Your task to perform on an android device: visit the assistant section in the google photos Image 0: 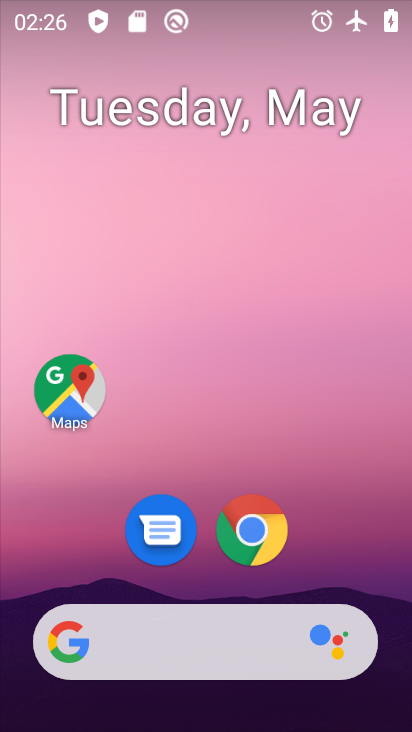
Step 0: drag from (196, 577) to (281, 190)
Your task to perform on an android device: visit the assistant section in the google photos Image 1: 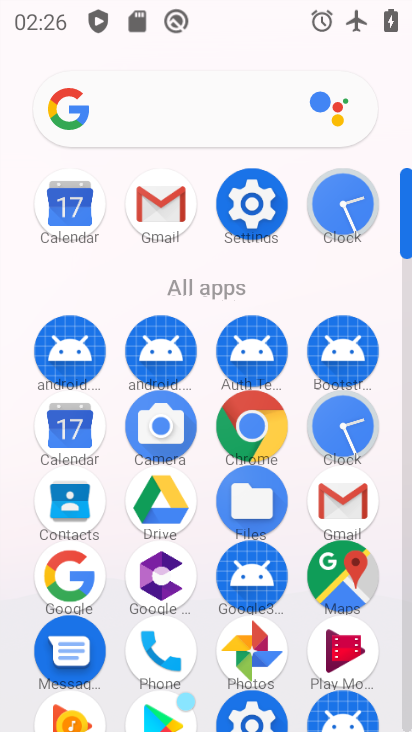
Step 1: click (235, 645)
Your task to perform on an android device: visit the assistant section in the google photos Image 2: 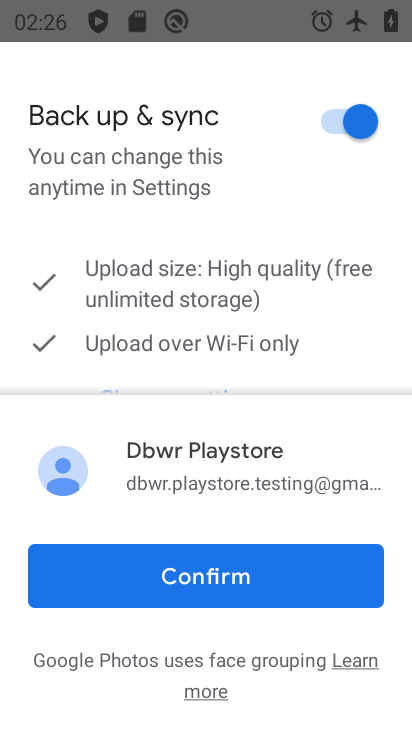
Step 2: click (262, 569)
Your task to perform on an android device: visit the assistant section in the google photos Image 3: 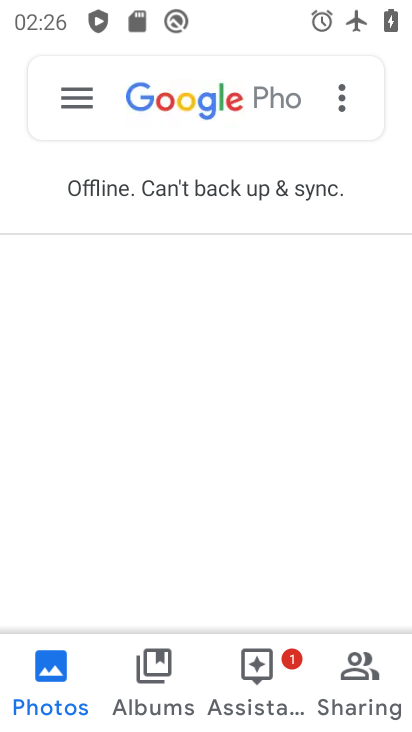
Step 3: click (248, 677)
Your task to perform on an android device: visit the assistant section in the google photos Image 4: 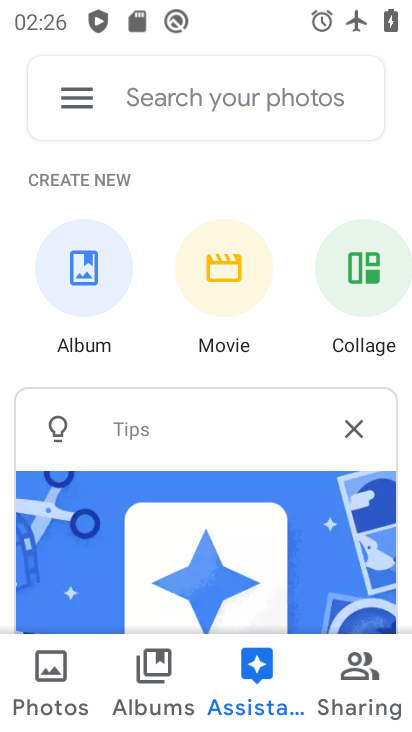
Step 4: task complete